Your task to perform on an android device: turn on airplane mode Image 0: 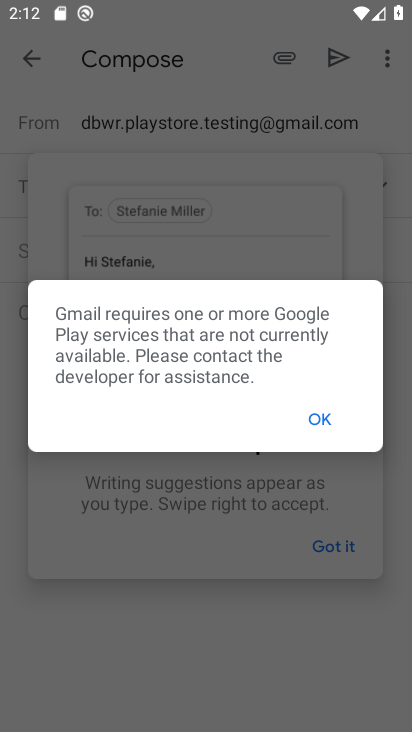
Step 0: press home button
Your task to perform on an android device: turn on airplane mode Image 1: 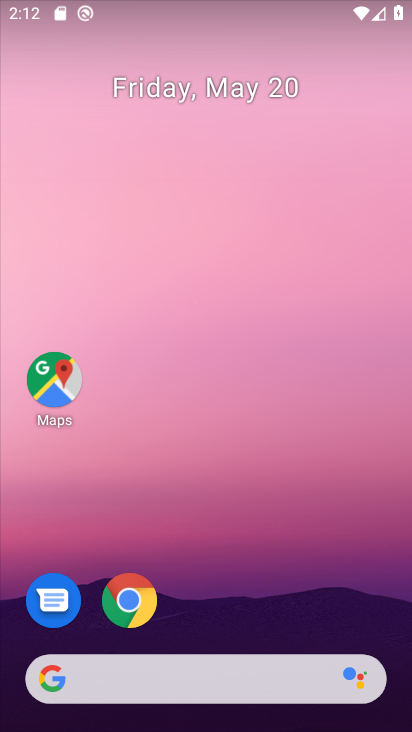
Step 1: drag from (288, 332) to (255, 21)
Your task to perform on an android device: turn on airplane mode Image 2: 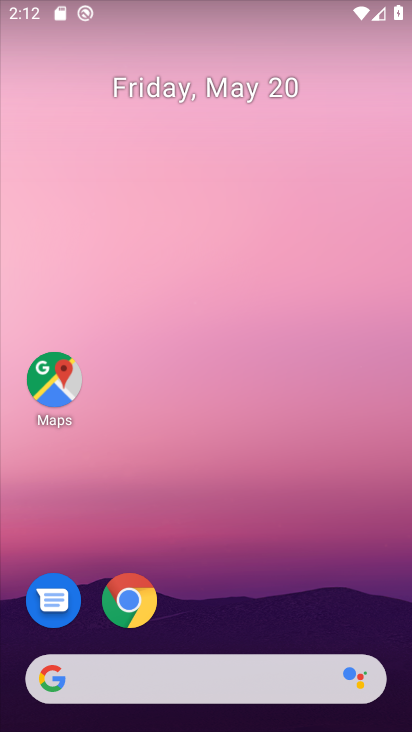
Step 2: drag from (229, 316) to (191, 0)
Your task to perform on an android device: turn on airplane mode Image 3: 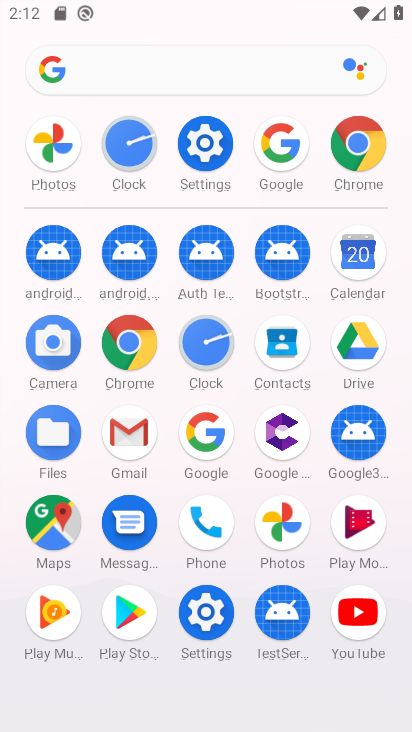
Step 3: click (205, 142)
Your task to perform on an android device: turn on airplane mode Image 4: 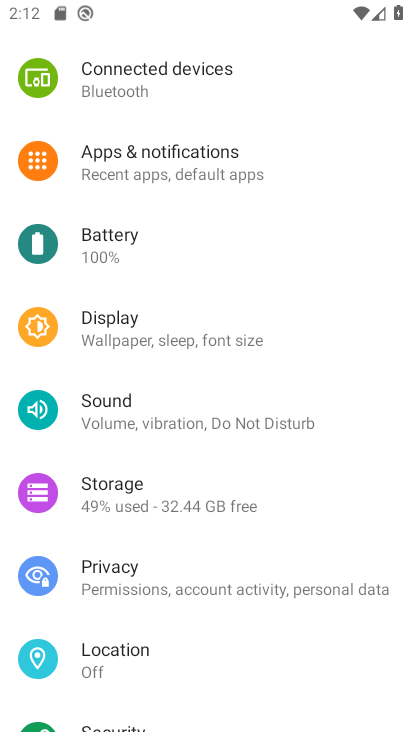
Step 4: drag from (282, 180) to (181, 634)
Your task to perform on an android device: turn on airplane mode Image 5: 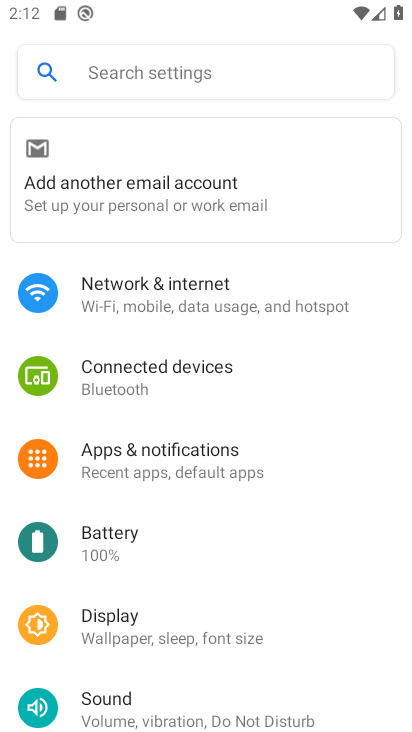
Step 5: click (233, 304)
Your task to perform on an android device: turn on airplane mode Image 6: 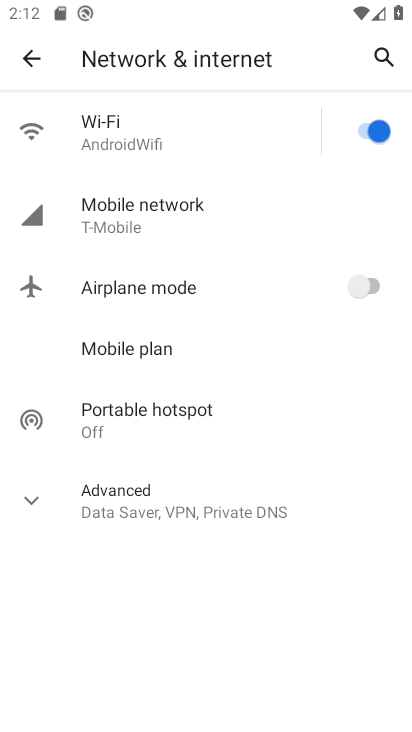
Step 6: click (369, 287)
Your task to perform on an android device: turn on airplane mode Image 7: 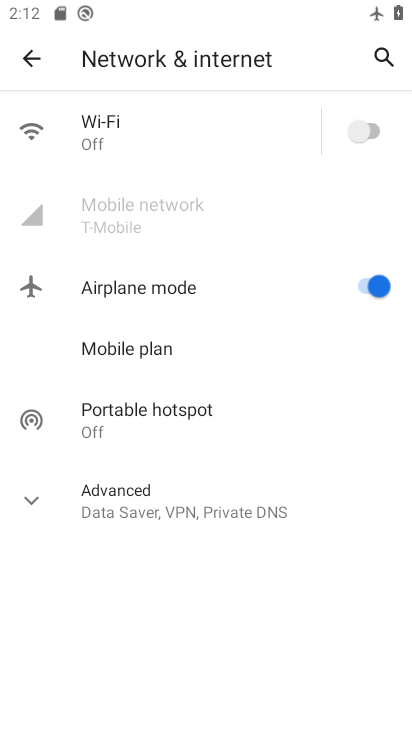
Step 7: task complete